Your task to perform on an android device: Go to calendar. Show me events next week Image 0: 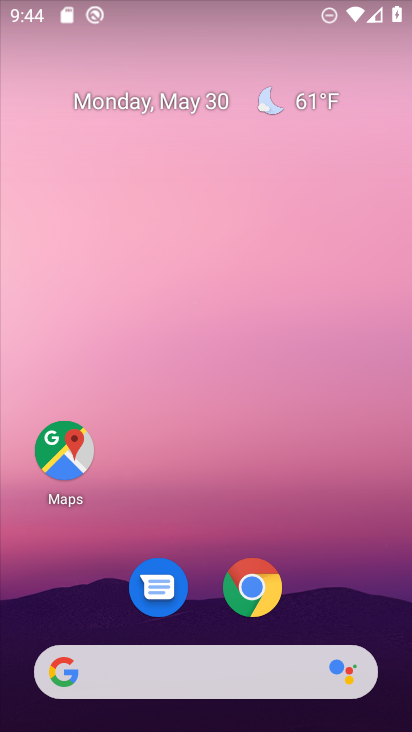
Step 0: drag from (231, 656) to (358, 527)
Your task to perform on an android device: Go to calendar. Show me events next week Image 1: 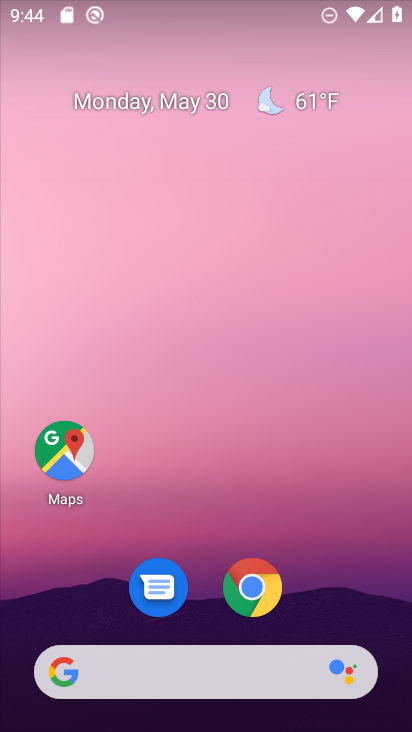
Step 1: drag from (49, 393) to (52, 15)
Your task to perform on an android device: Go to calendar. Show me events next week Image 2: 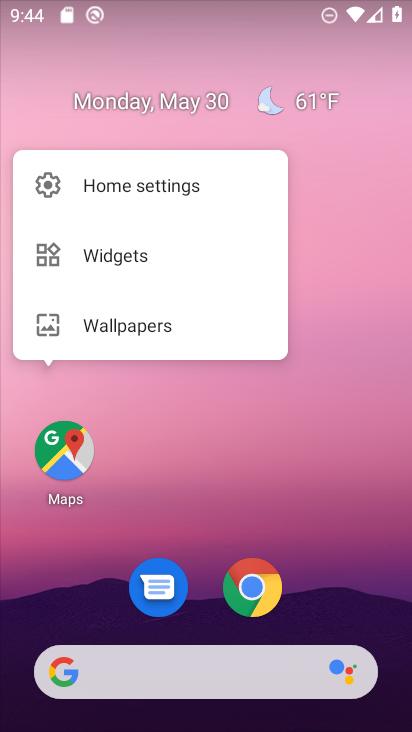
Step 2: drag from (209, 657) to (267, 603)
Your task to perform on an android device: Go to calendar. Show me events next week Image 3: 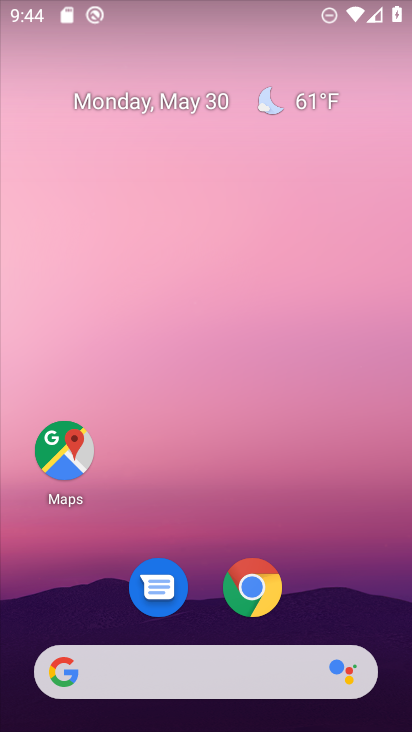
Step 3: drag from (240, 637) to (159, 14)
Your task to perform on an android device: Go to calendar. Show me events next week Image 4: 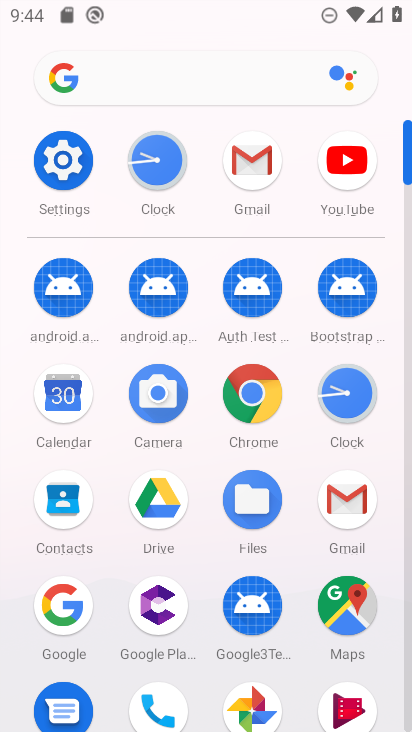
Step 4: click (44, 400)
Your task to perform on an android device: Go to calendar. Show me events next week Image 5: 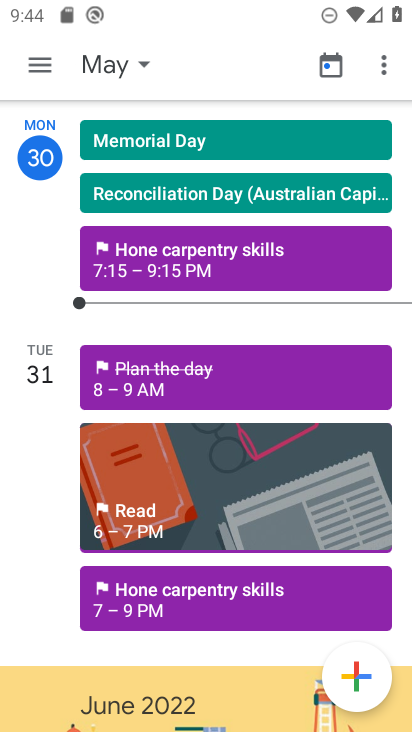
Step 5: click (39, 61)
Your task to perform on an android device: Go to calendar. Show me events next week Image 6: 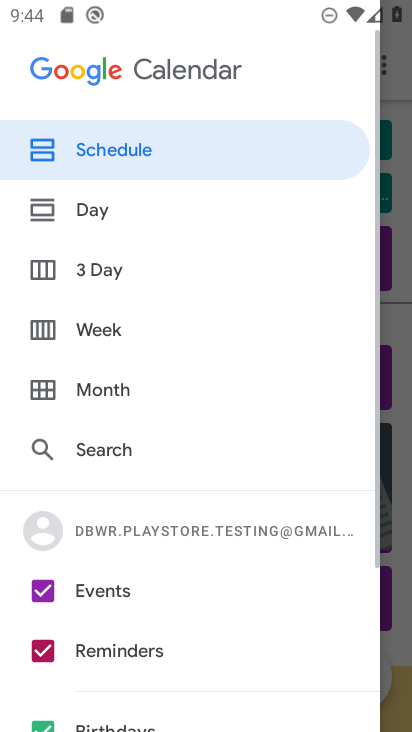
Step 6: click (97, 332)
Your task to perform on an android device: Go to calendar. Show me events next week Image 7: 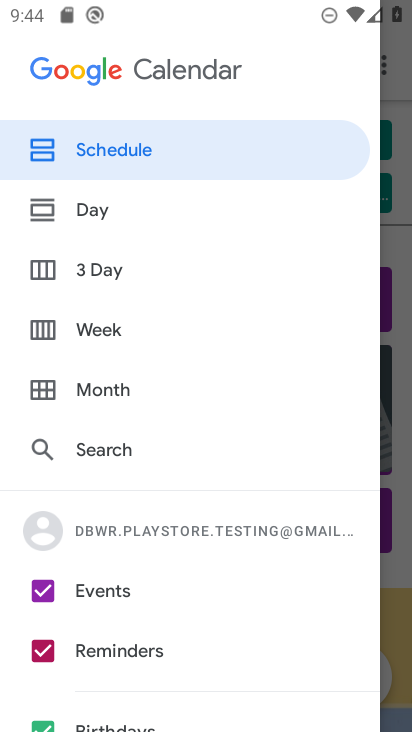
Step 7: click (123, 328)
Your task to perform on an android device: Go to calendar. Show me events next week Image 8: 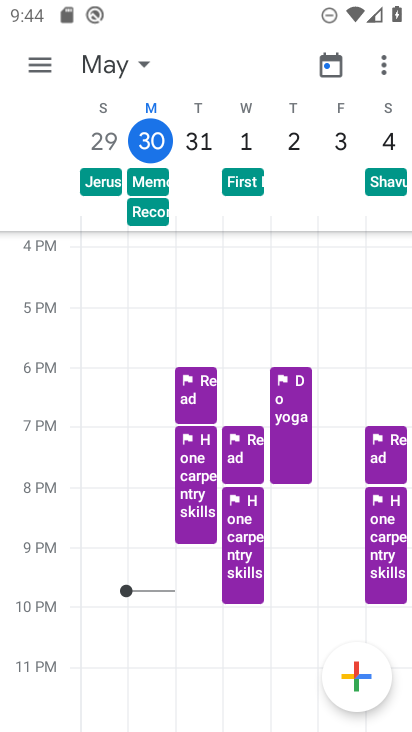
Step 8: task complete